Your task to perform on an android device: Clear the shopping cart on ebay. Search for dell xps on ebay, select the first entry, and add it to the cart. Image 0: 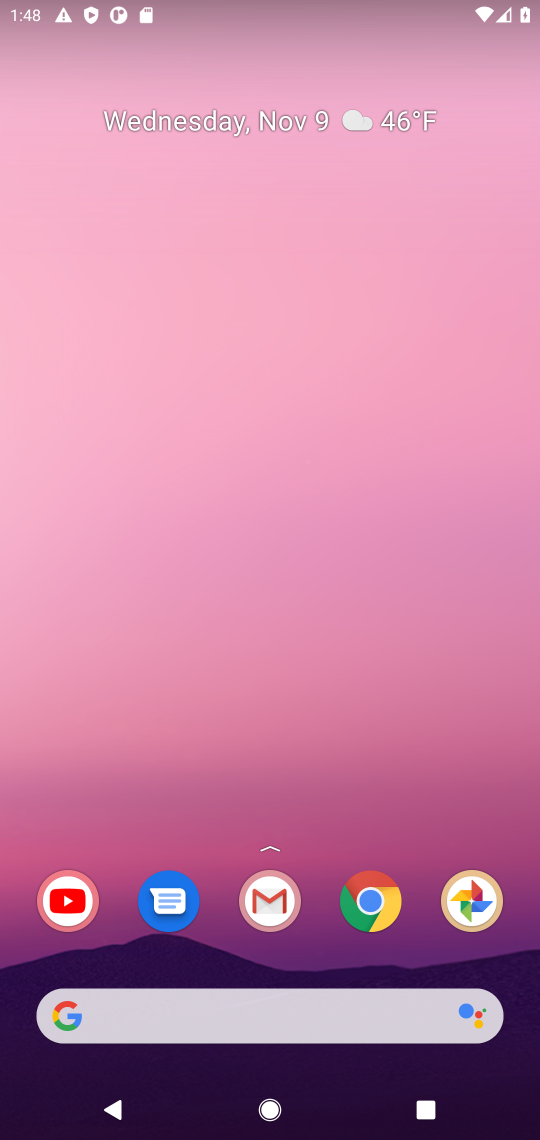
Step 0: click (371, 893)
Your task to perform on an android device: Clear the shopping cart on ebay. Search for dell xps on ebay, select the first entry, and add it to the cart. Image 1: 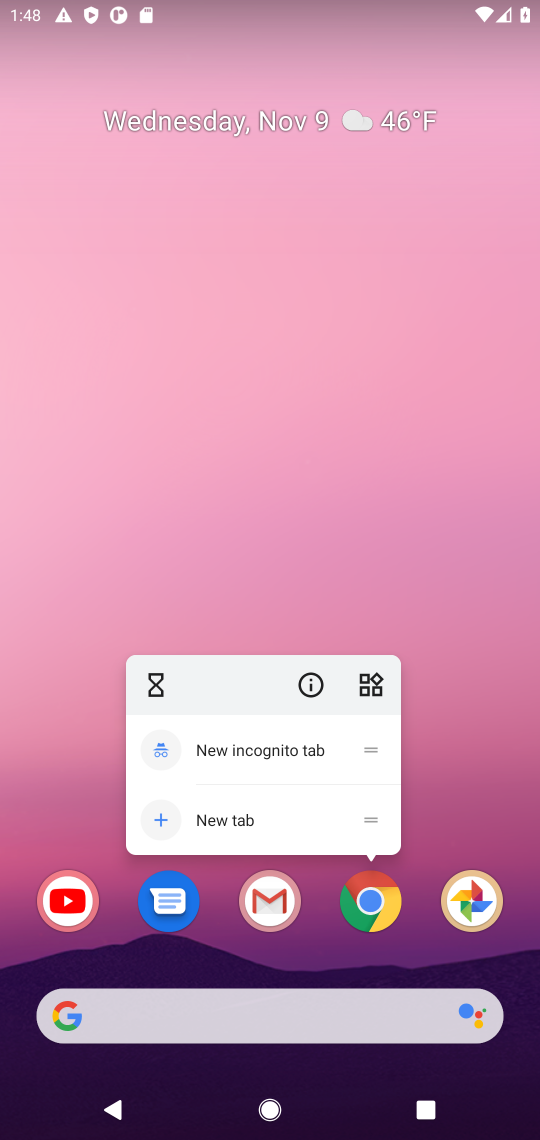
Step 1: click (371, 893)
Your task to perform on an android device: Clear the shopping cart on ebay. Search for dell xps on ebay, select the first entry, and add it to the cart. Image 2: 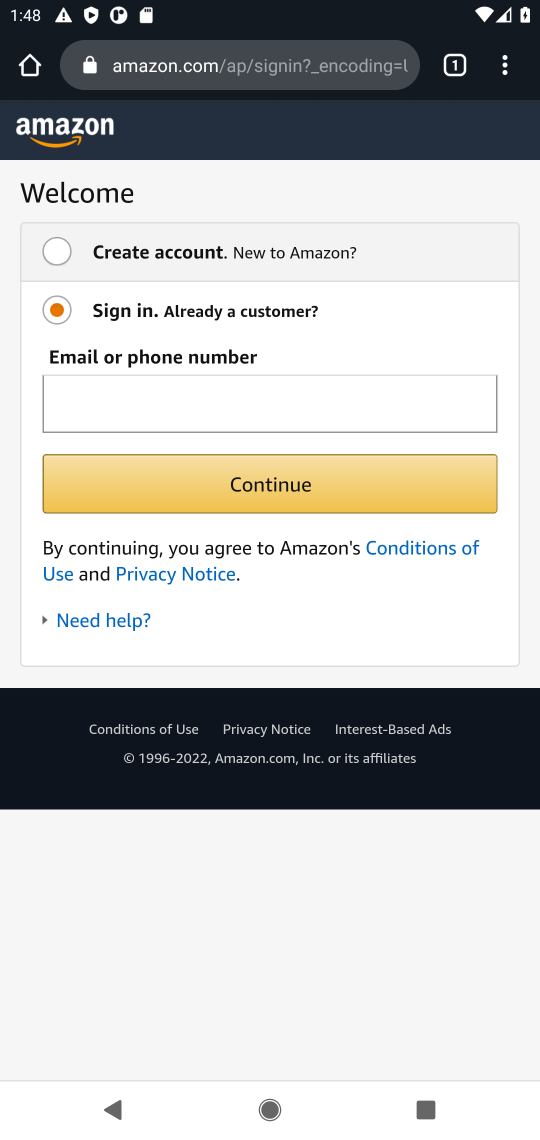
Step 2: click (321, 61)
Your task to perform on an android device: Clear the shopping cart on ebay. Search for dell xps on ebay, select the first entry, and add it to the cart. Image 3: 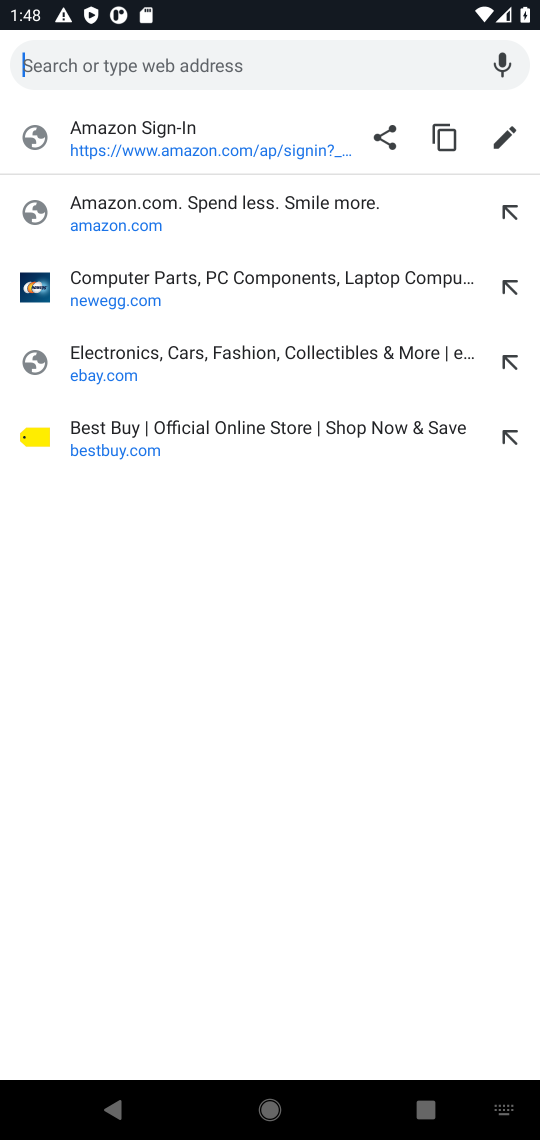
Step 3: type "ebay"
Your task to perform on an android device: Clear the shopping cart on ebay. Search for dell xps on ebay, select the first entry, and add it to the cart. Image 4: 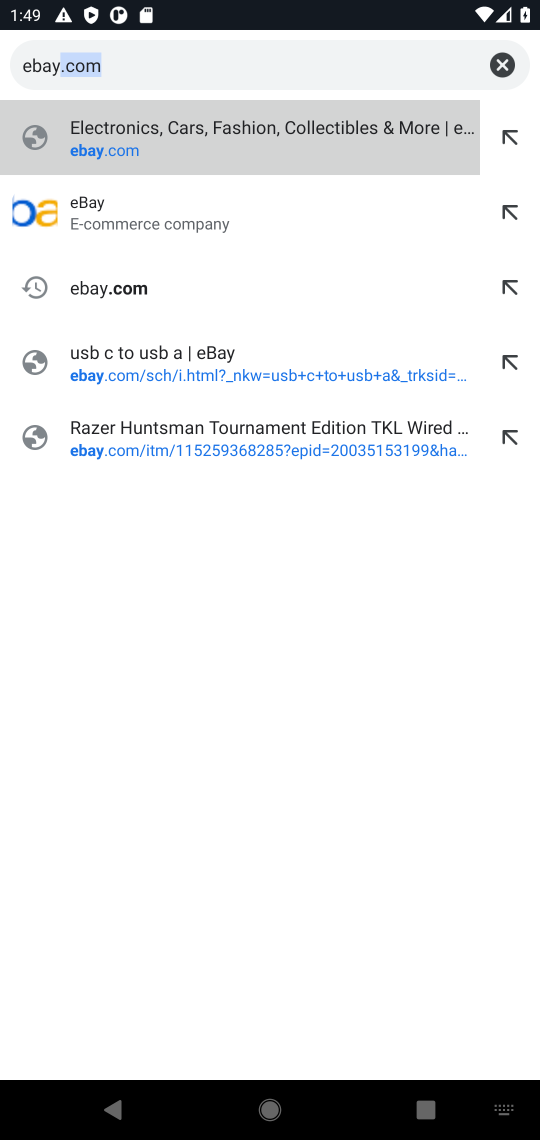
Step 4: click (125, 294)
Your task to perform on an android device: Clear the shopping cart on ebay. Search for dell xps on ebay, select the first entry, and add it to the cart. Image 5: 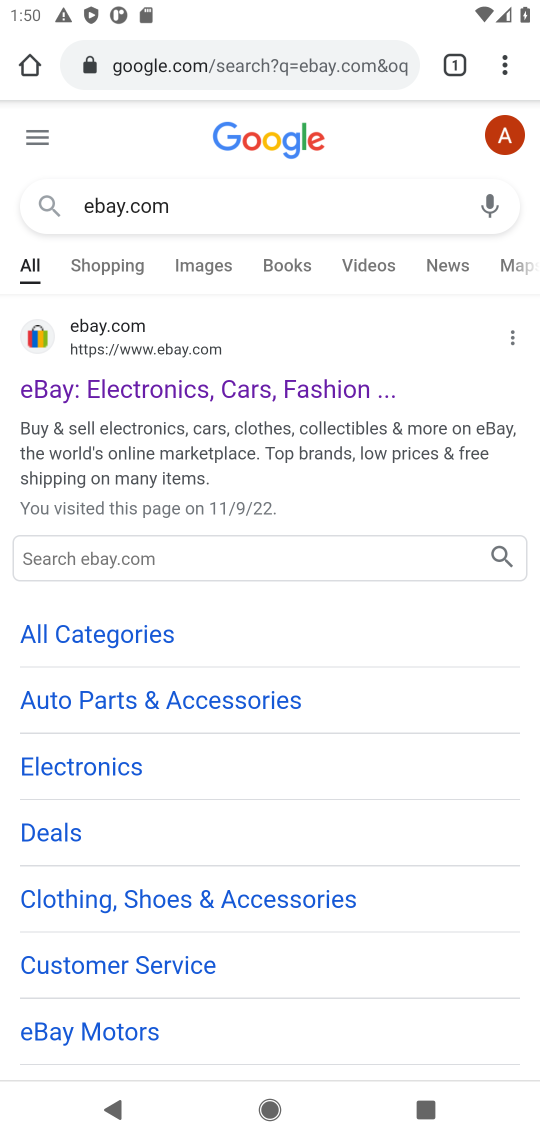
Step 5: click (182, 352)
Your task to perform on an android device: Clear the shopping cart on ebay. Search for dell xps on ebay, select the first entry, and add it to the cart. Image 6: 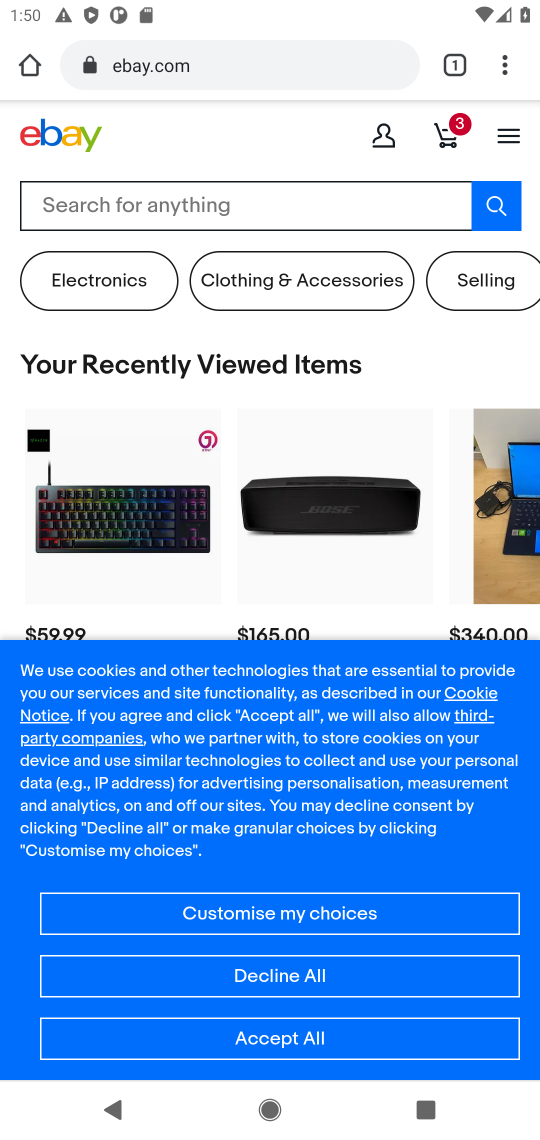
Step 6: click (450, 131)
Your task to perform on an android device: Clear the shopping cart on ebay. Search for dell xps on ebay, select the first entry, and add it to the cart. Image 7: 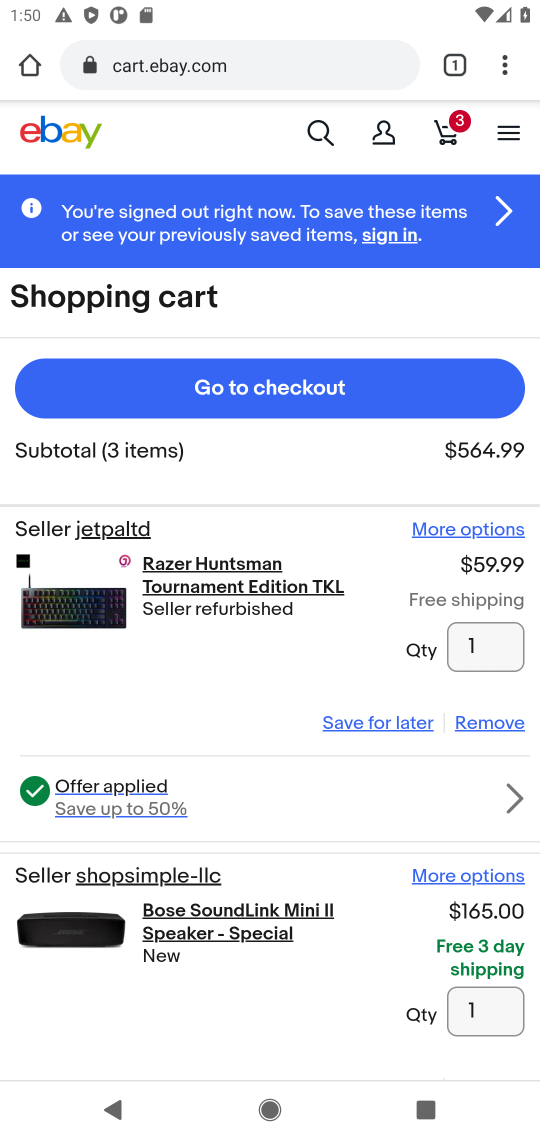
Step 7: click (499, 724)
Your task to perform on an android device: Clear the shopping cart on ebay. Search for dell xps on ebay, select the first entry, and add it to the cart. Image 8: 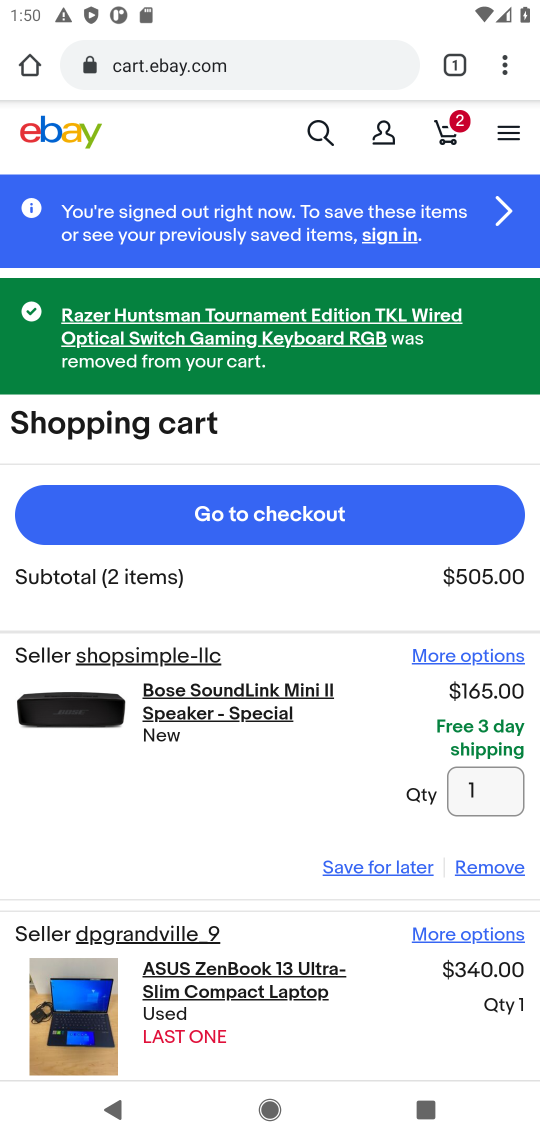
Step 8: click (502, 863)
Your task to perform on an android device: Clear the shopping cart on ebay. Search for dell xps on ebay, select the first entry, and add it to the cart. Image 9: 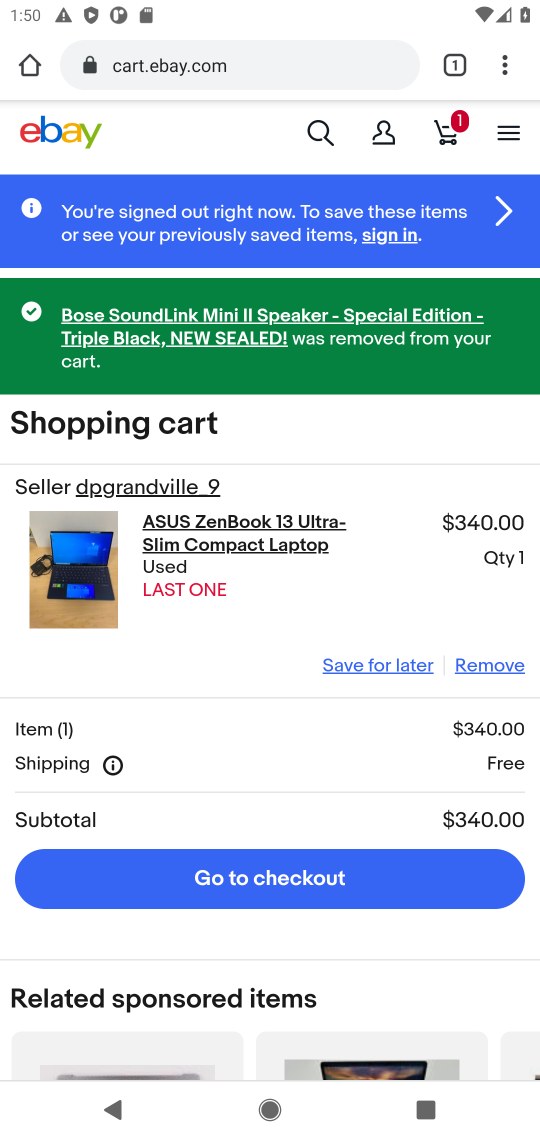
Step 9: click (487, 667)
Your task to perform on an android device: Clear the shopping cart on ebay. Search for dell xps on ebay, select the first entry, and add it to the cart. Image 10: 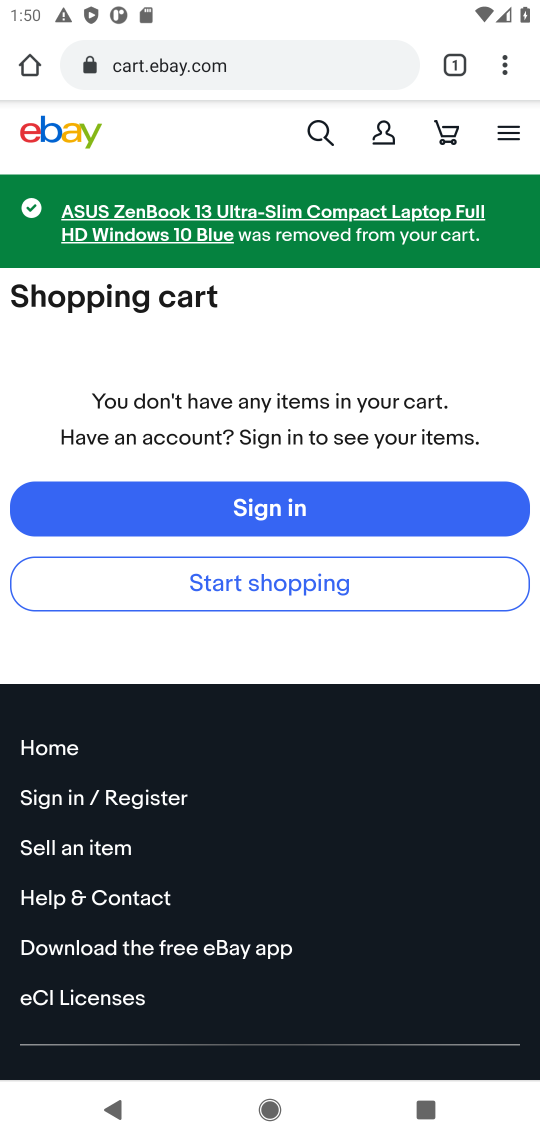
Step 10: click (315, 127)
Your task to perform on an android device: Clear the shopping cart on ebay. Search for dell xps on ebay, select the first entry, and add it to the cart. Image 11: 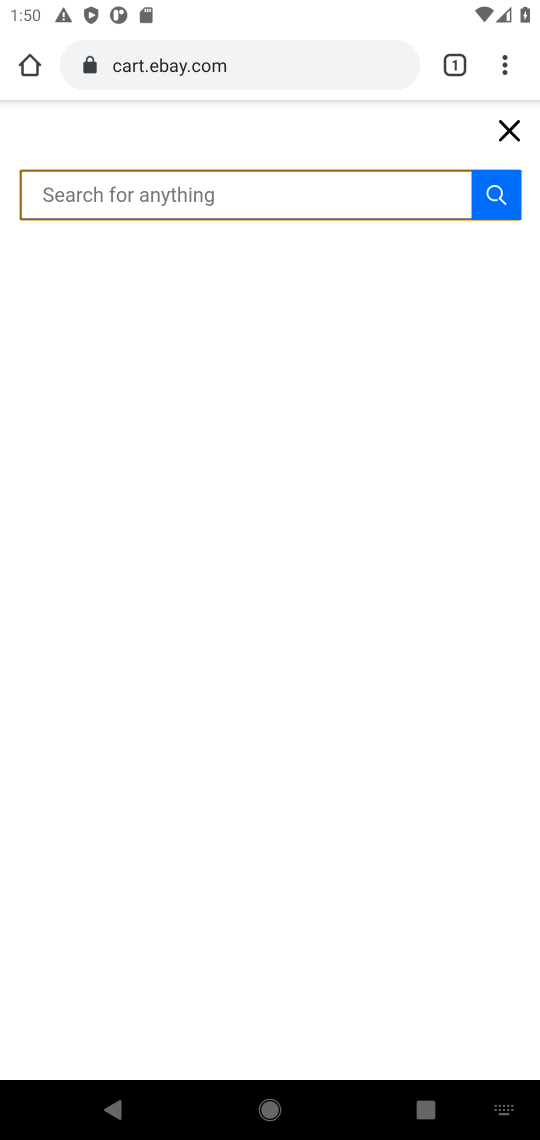
Step 11: type "dell xps"
Your task to perform on an android device: Clear the shopping cart on ebay. Search for dell xps on ebay, select the first entry, and add it to the cart. Image 12: 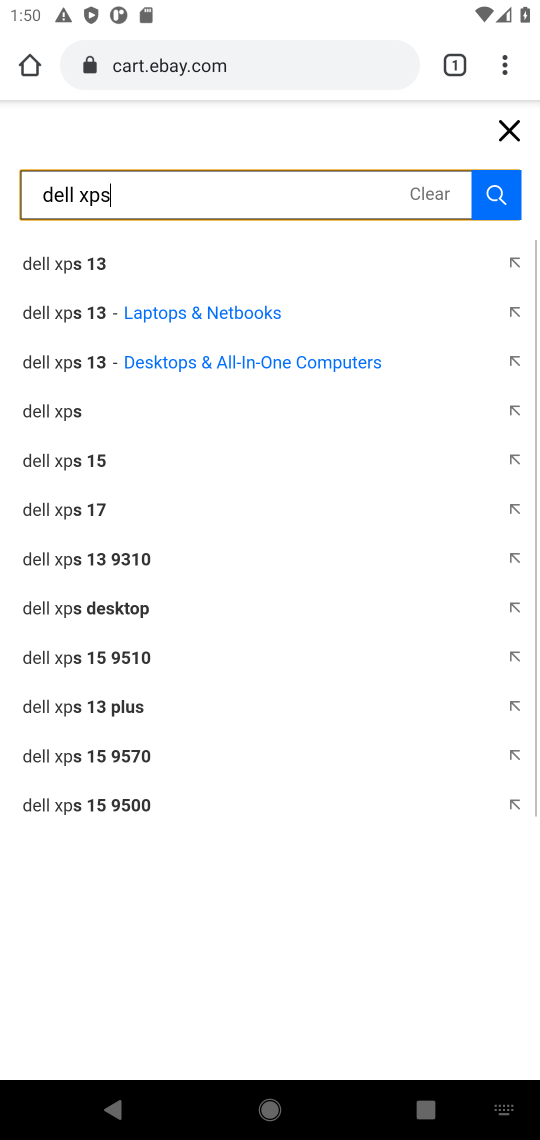
Step 12: press enter
Your task to perform on an android device: Clear the shopping cart on ebay. Search for dell xps on ebay, select the first entry, and add it to the cart. Image 13: 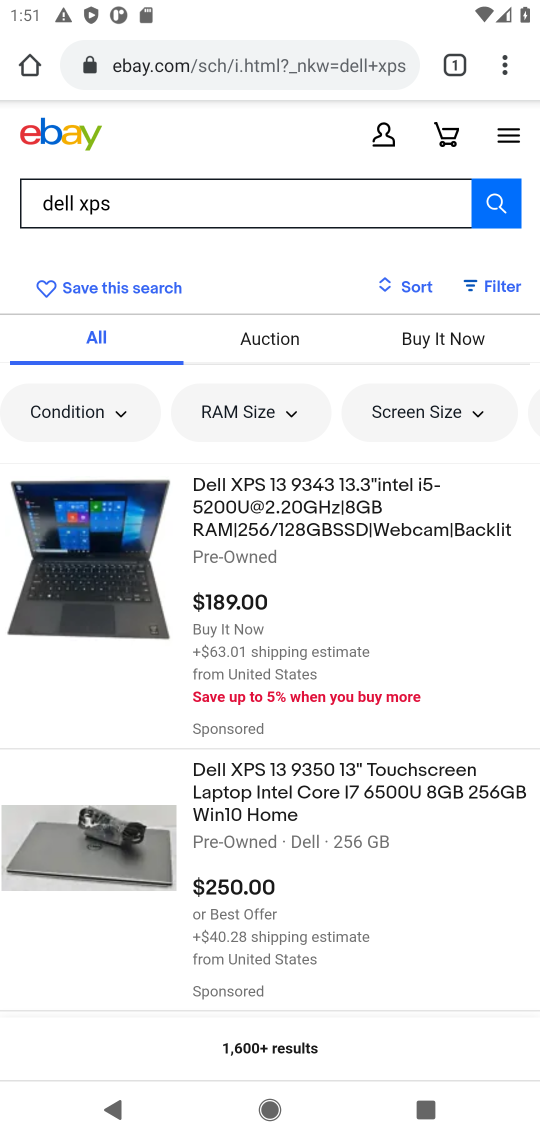
Step 13: click (110, 570)
Your task to perform on an android device: Clear the shopping cart on ebay. Search for dell xps on ebay, select the first entry, and add it to the cart. Image 14: 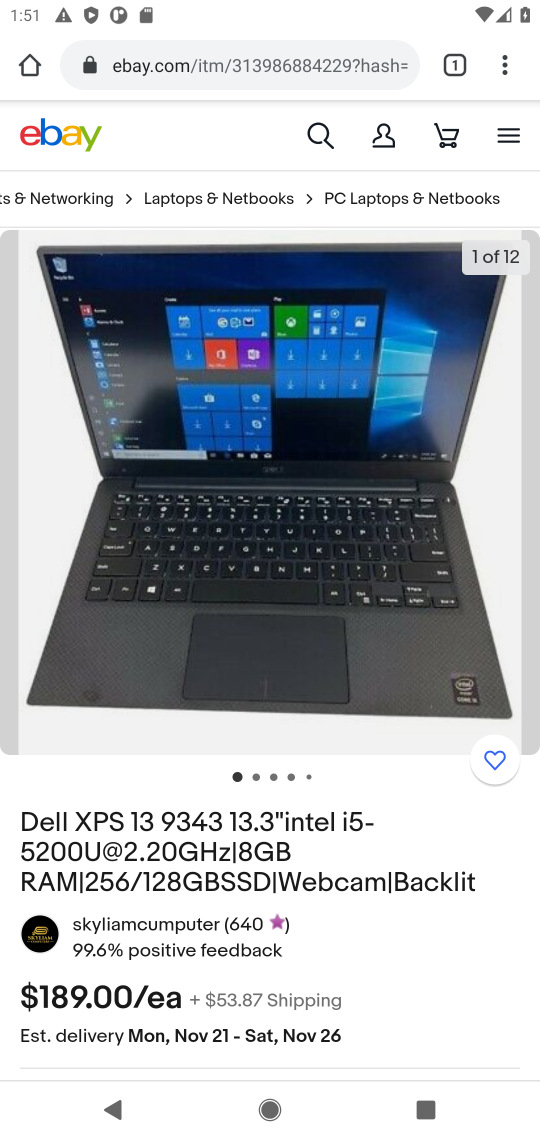
Step 14: drag from (398, 802) to (355, 401)
Your task to perform on an android device: Clear the shopping cart on ebay. Search for dell xps on ebay, select the first entry, and add it to the cart. Image 15: 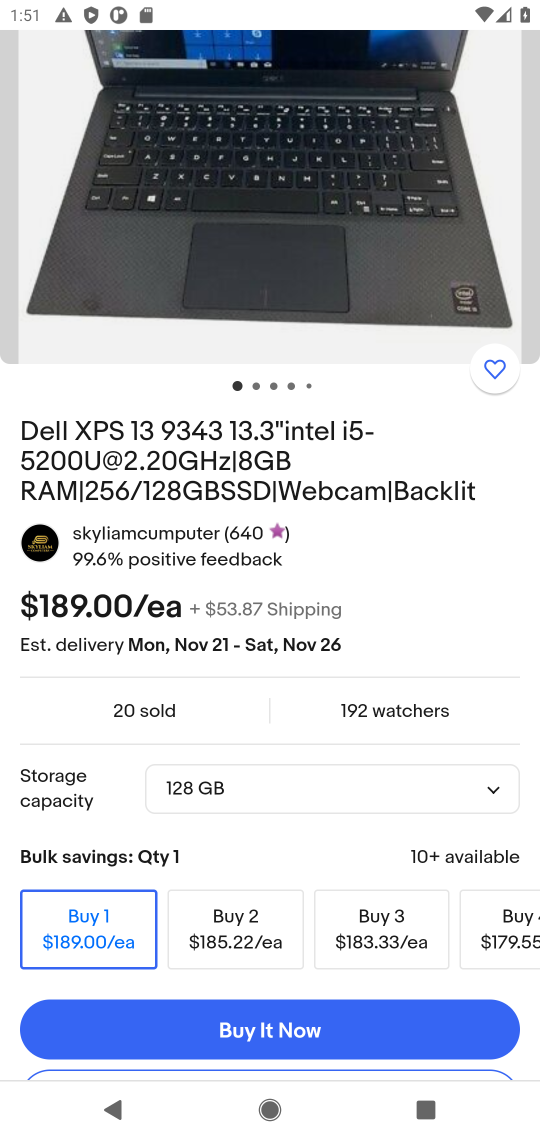
Step 15: drag from (421, 750) to (440, 352)
Your task to perform on an android device: Clear the shopping cart on ebay. Search for dell xps on ebay, select the first entry, and add it to the cart. Image 16: 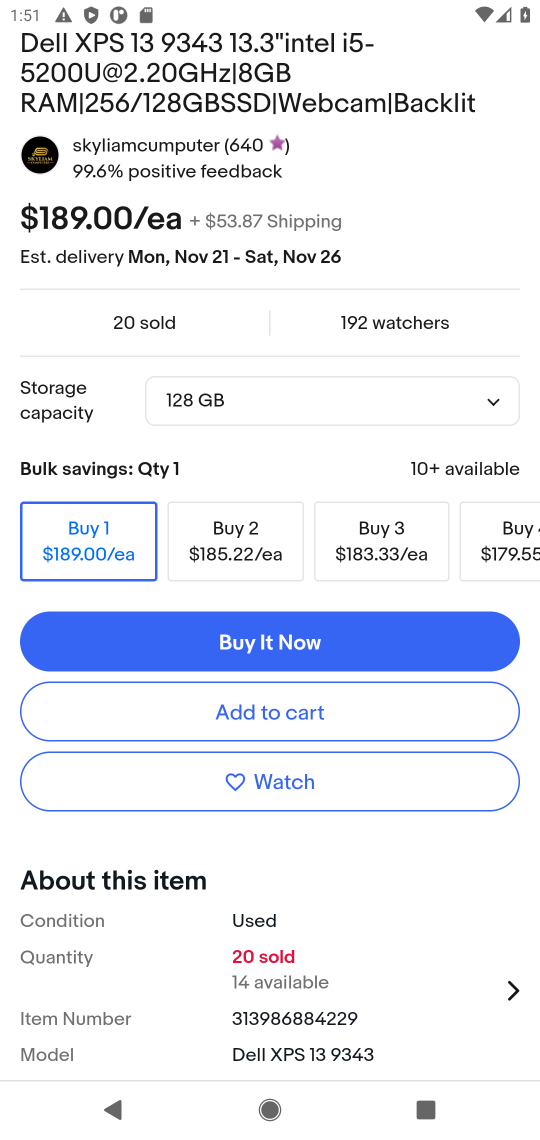
Step 16: click (300, 700)
Your task to perform on an android device: Clear the shopping cart on ebay. Search for dell xps on ebay, select the first entry, and add it to the cart. Image 17: 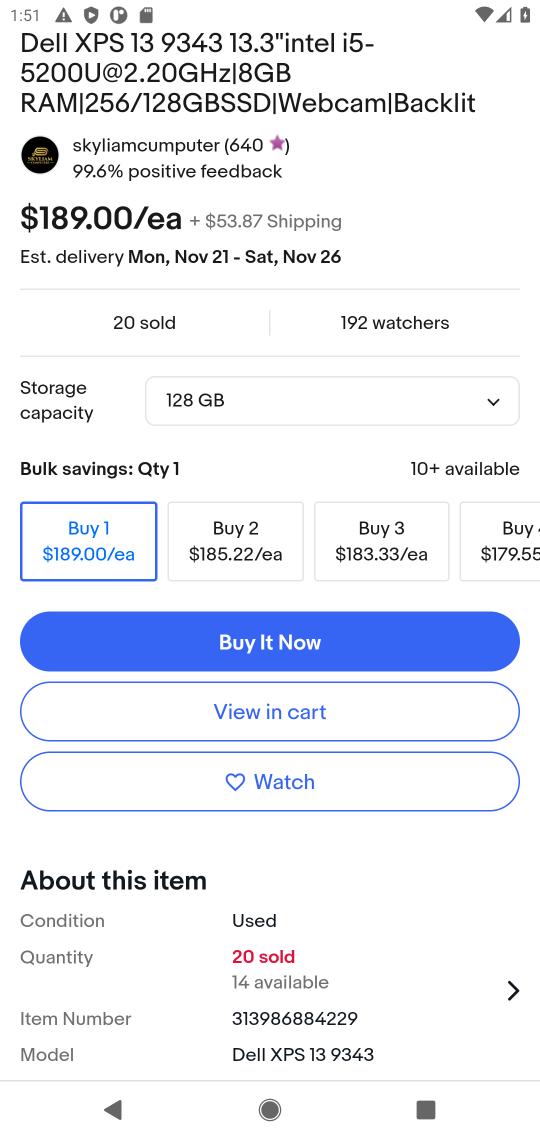
Step 17: click (247, 711)
Your task to perform on an android device: Clear the shopping cart on ebay. Search for dell xps on ebay, select the first entry, and add it to the cart. Image 18: 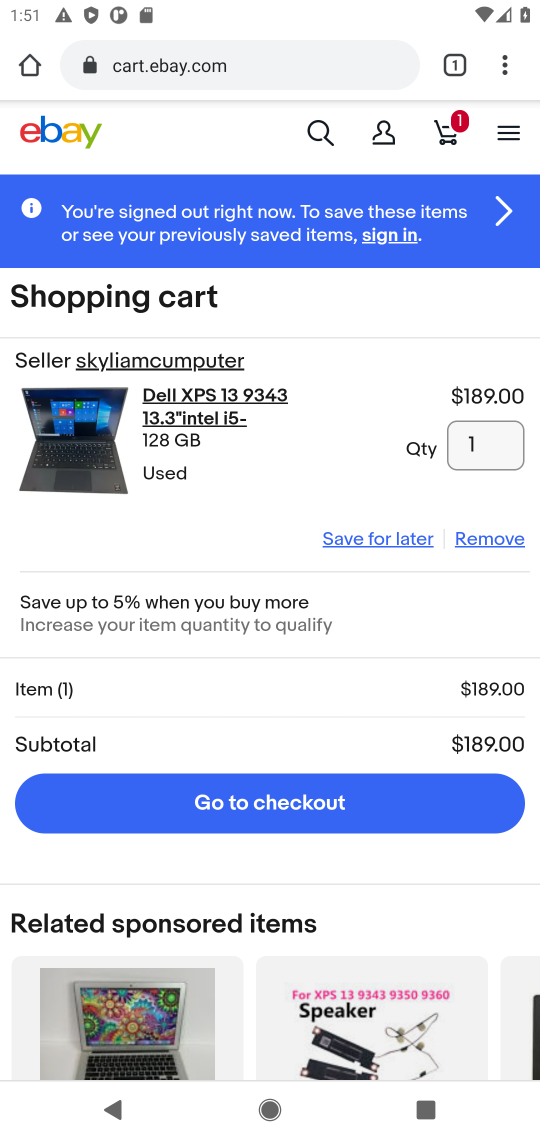
Step 18: task complete